Your task to perform on an android device: When is my next meeting? Image 0: 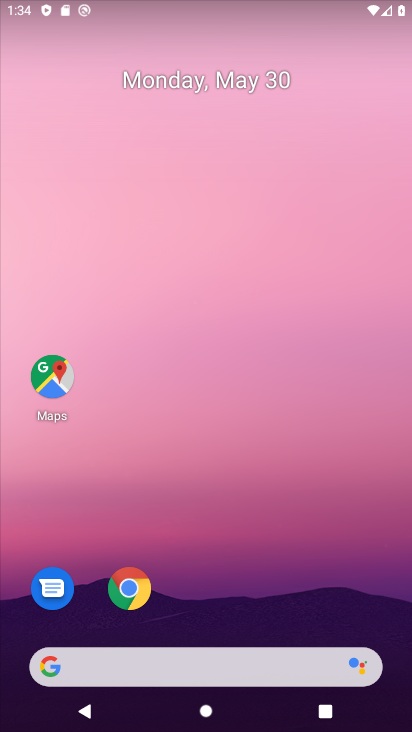
Step 0: drag from (252, 383) to (127, 19)
Your task to perform on an android device: When is my next meeting? Image 1: 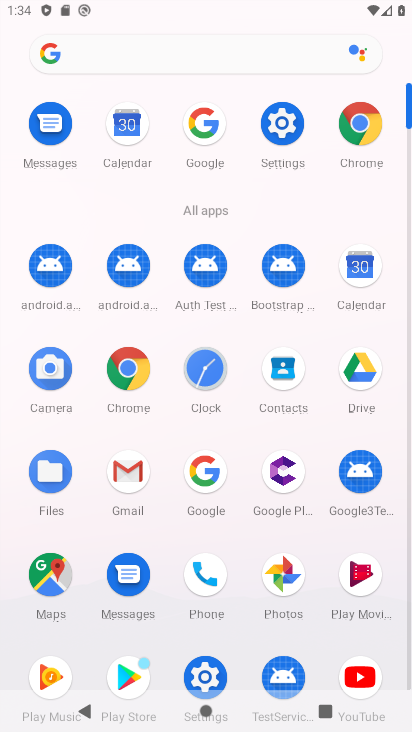
Step 1: click (339, 253)
Your task to perform on an android device: When is my next meeting? Image 2: 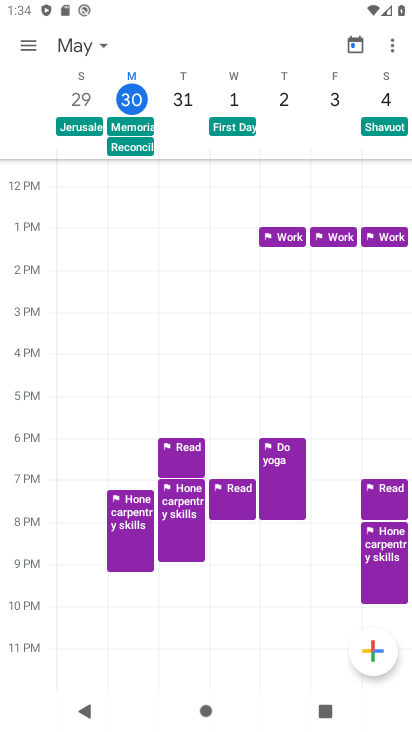
Step 2: click (97, 21)
Your task to perform on an android device: When is my next meeting? Image 3: 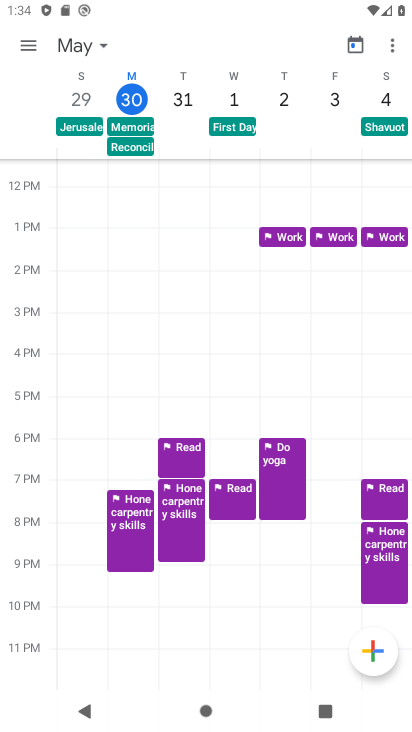
Step 3: task complete